Your task to perform on an android device: Is it going to rain today? Image 0: 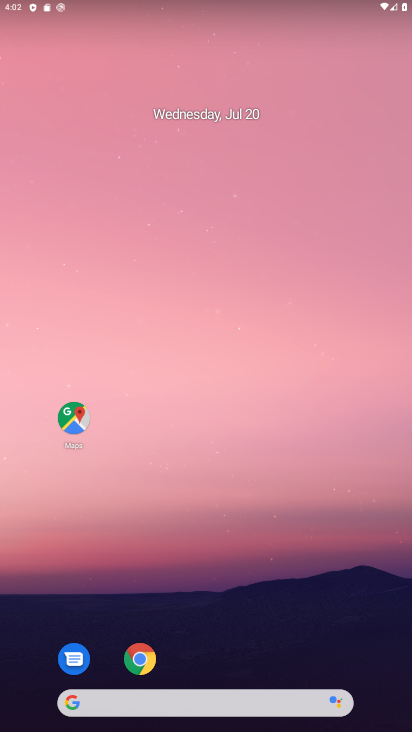
Step 0: drag from (195, 696) to (208, 20)
Your task to perform on an android device: Is it going to rain today? Image 1: 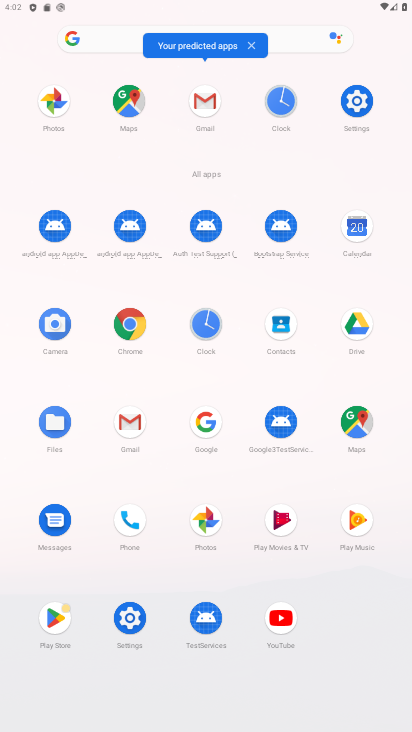
Step 1: click (115, 337)
Your task to perform on an android device: Is it going to rain today? Image 2: 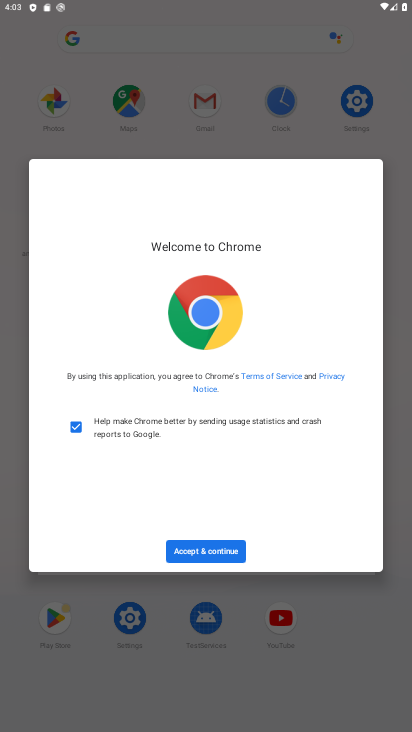
Step 2: click (183, 554)
Your task to perform on an android device: Is it going to rain today? Image 3: 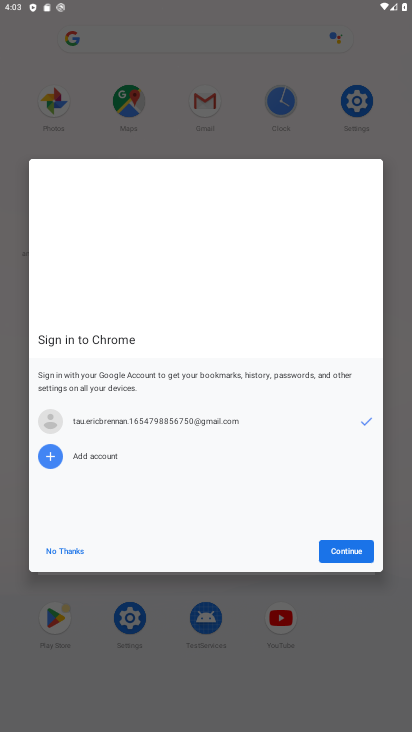
Step 3: click (63, 545)
Your task to perform on an android device: Is it going to rain today? Image 4: 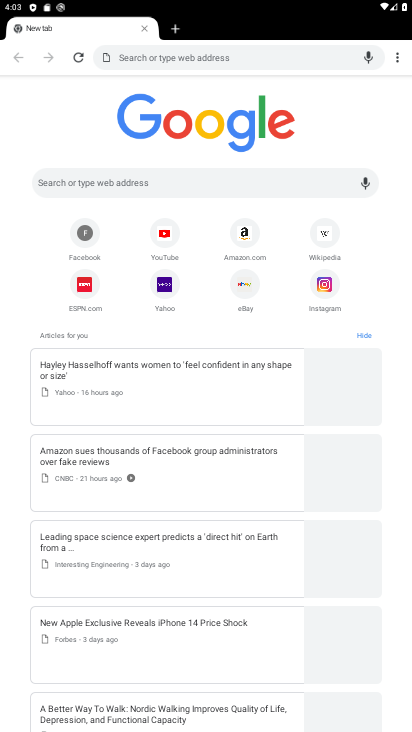
Step 4: click (175, 62)
Your task to perform on an android device: Is it going to rain today? Image 5: 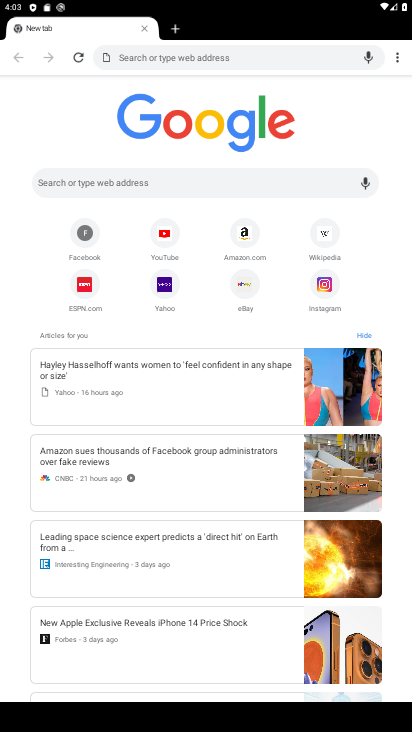
Step 5: type "going to rain today"
Your task to perform on an android device: Is it going to rain today? Image 6: 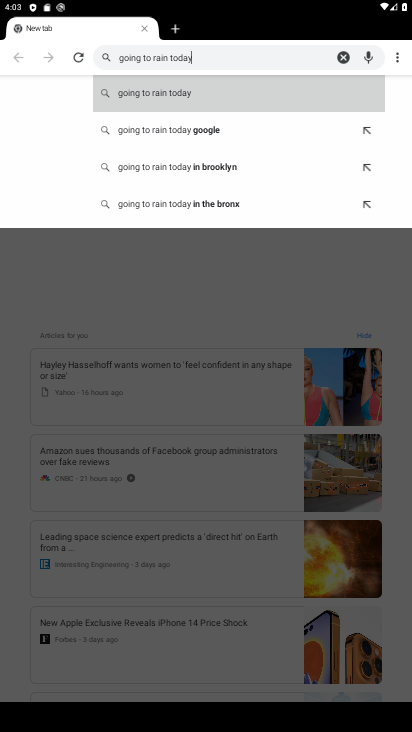
Step 6: click (211, 100)
Your task to perform on an android device: Is it going to rain today? Image 7: 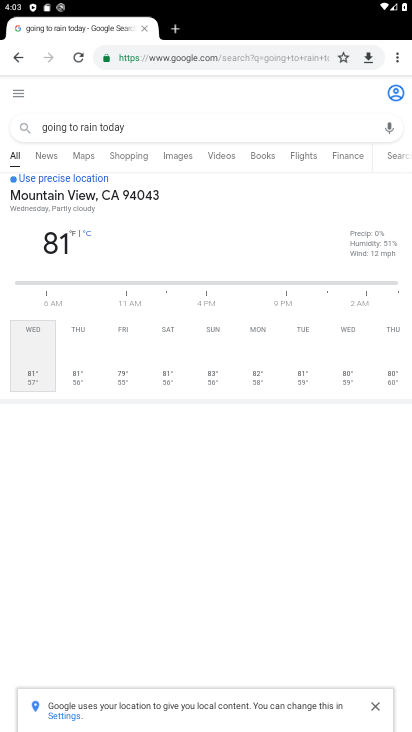
Step 7: task complete